Your task to perform on an android device: star an email in the gmail app Image 0: 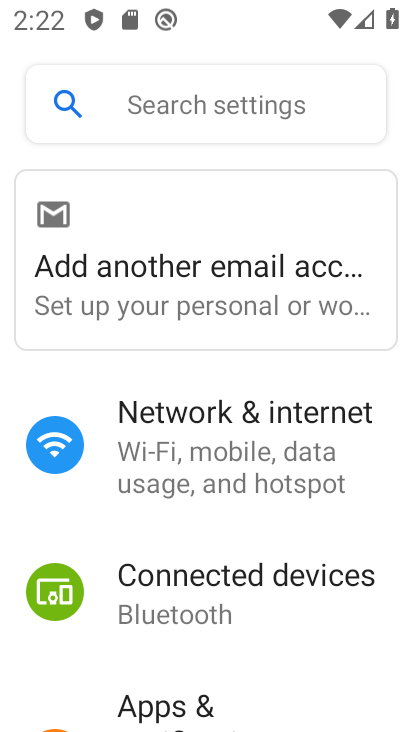
Step 0: press home button
Your task to perform on an android device: star an email in the gmail app Image 1: 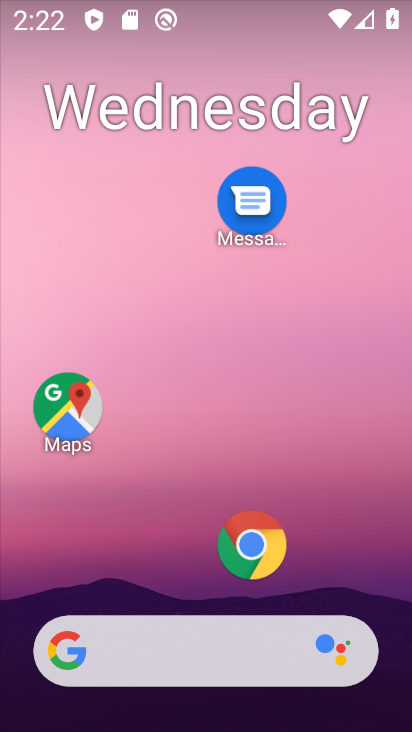
Step 1: drag from (195, 571) to (274, 22)
Your task to perform on an android device: star an email in the gmail app Image 2: 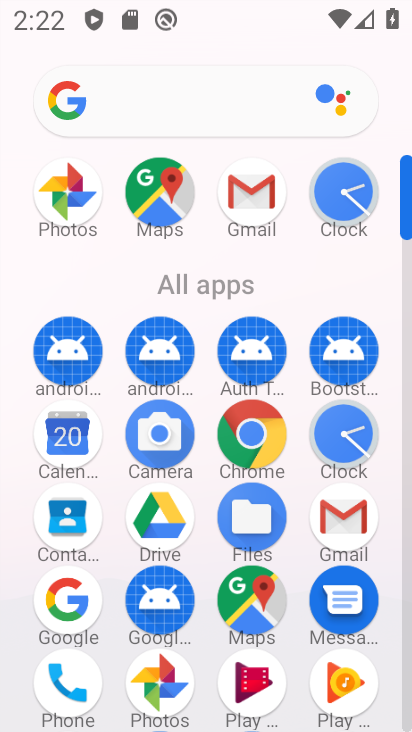
Step 2: click (346, 524)
Your task to perform on an android device: star an email in the gmail app Image 3: 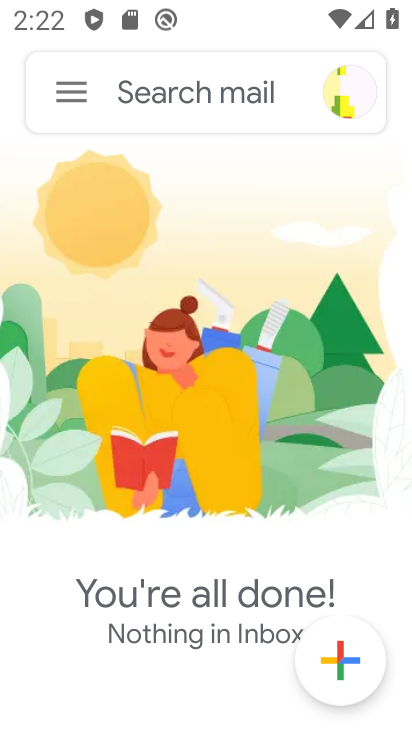
Step 3: click (65, 81)
Your task to perform on an android device: star an email in the gmail app Image 4: 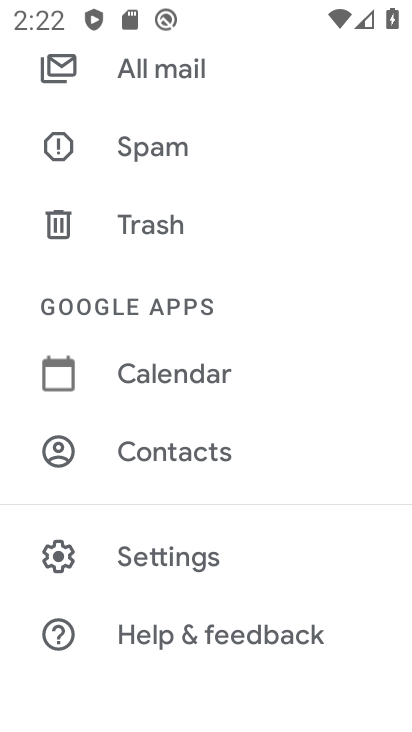
Step 4: click (142, 77)
Your task to perform on an android device: star an email in the gmail app Image 5: 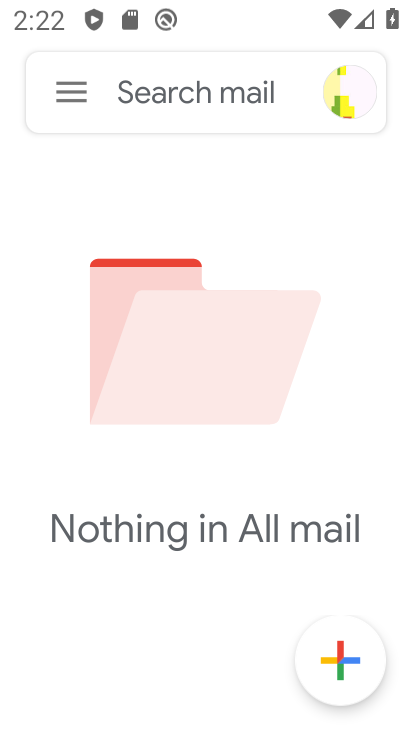
Step 5: task complete